Your task to perform on an android device: open app "Spotify" (install if not already installed) Image 0: 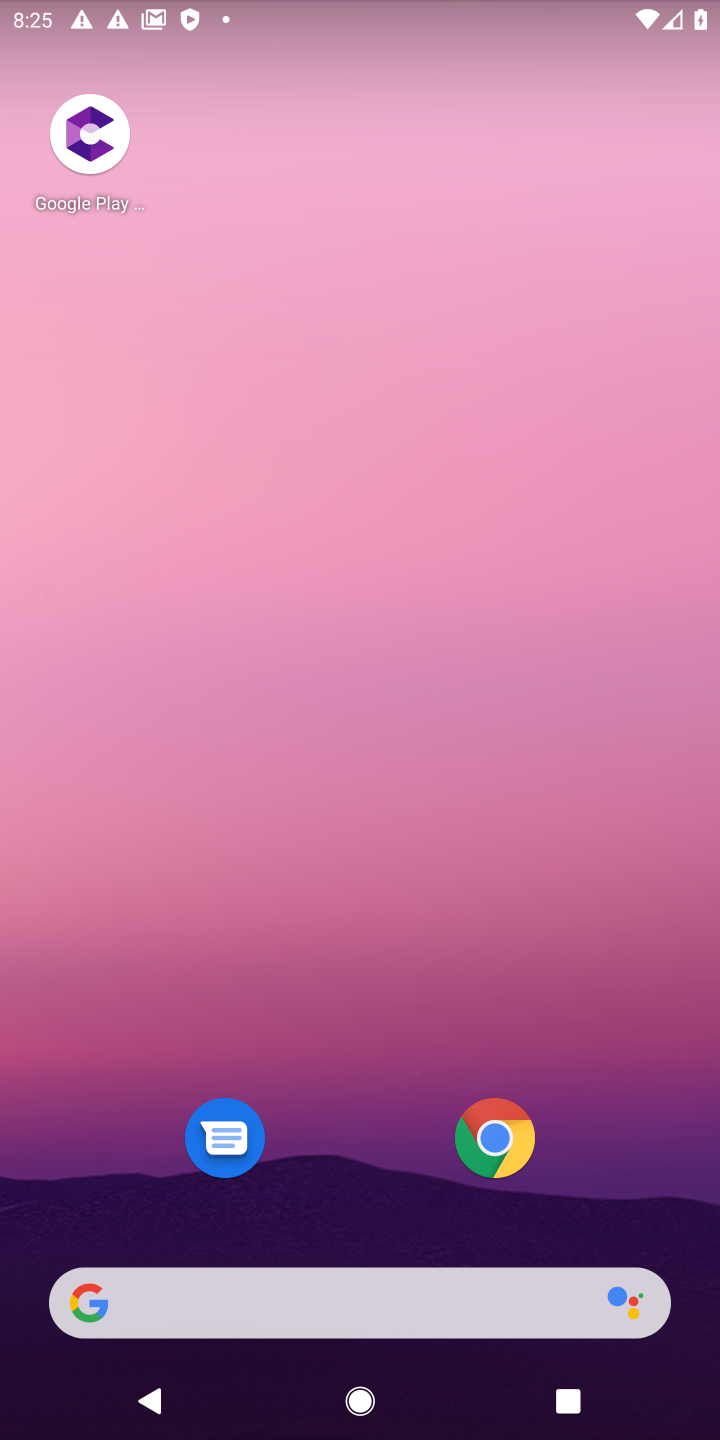
Step 0: drag from (370, 1227) to (497, 458)
Your task to perform on an android device: open app "Spotify" (install if not already installed) Image 1: 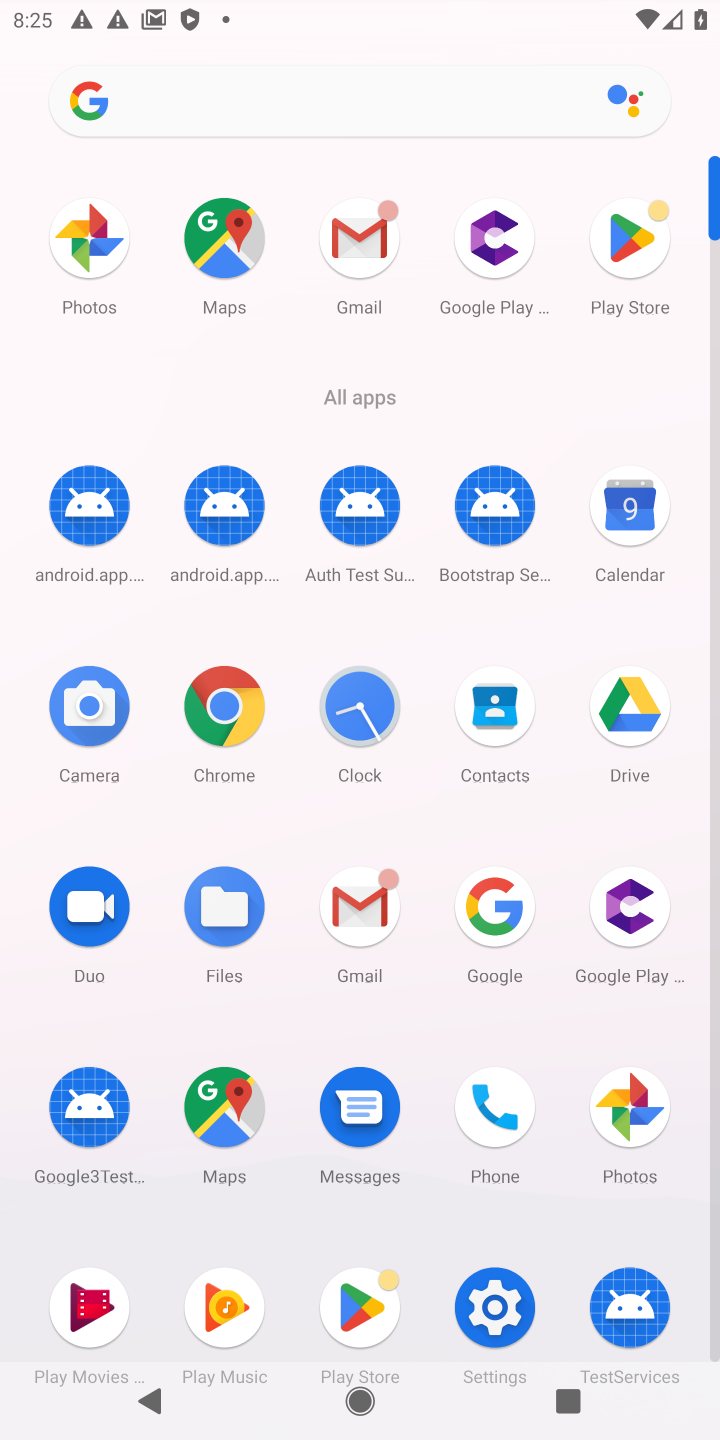
Step 1: click (627, 244)
Your task to perform on an android device: open app "Spotify" (install if not already installed) Image 2: 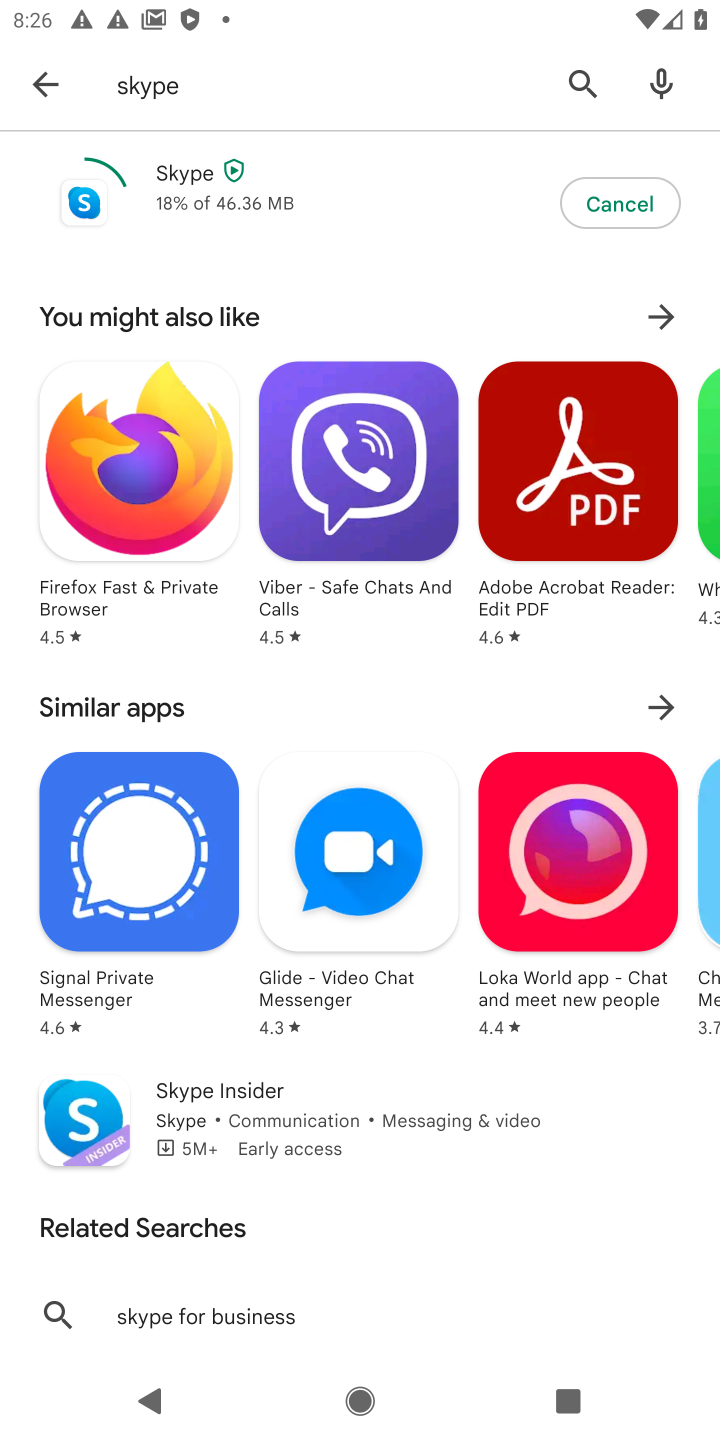
Step 2: click (589, 71)
Your task to perform on an android device: open app "Spotify" (install if not already installed) Image 3: 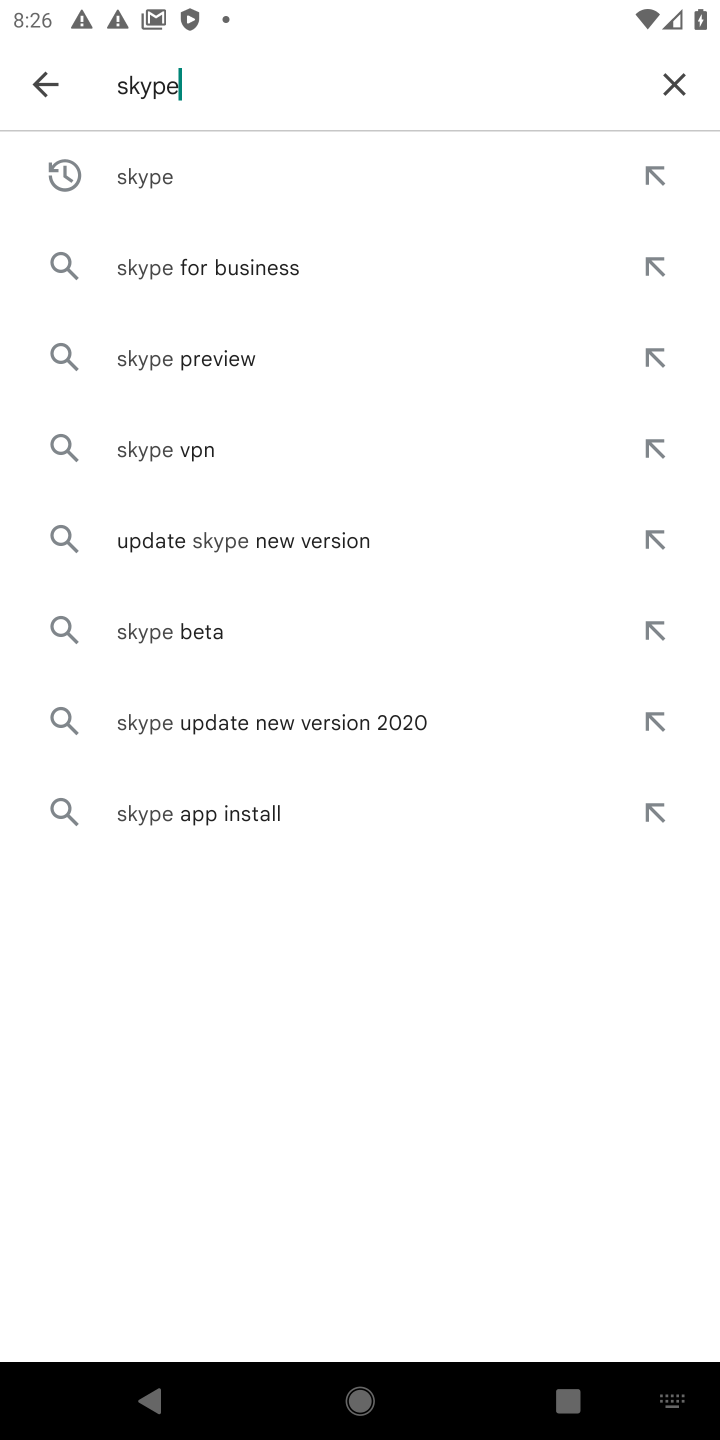
Step 3: click (667, 71)
Your task to perform on an android device: open app "Spotify" (install if not already installed) Image 4: 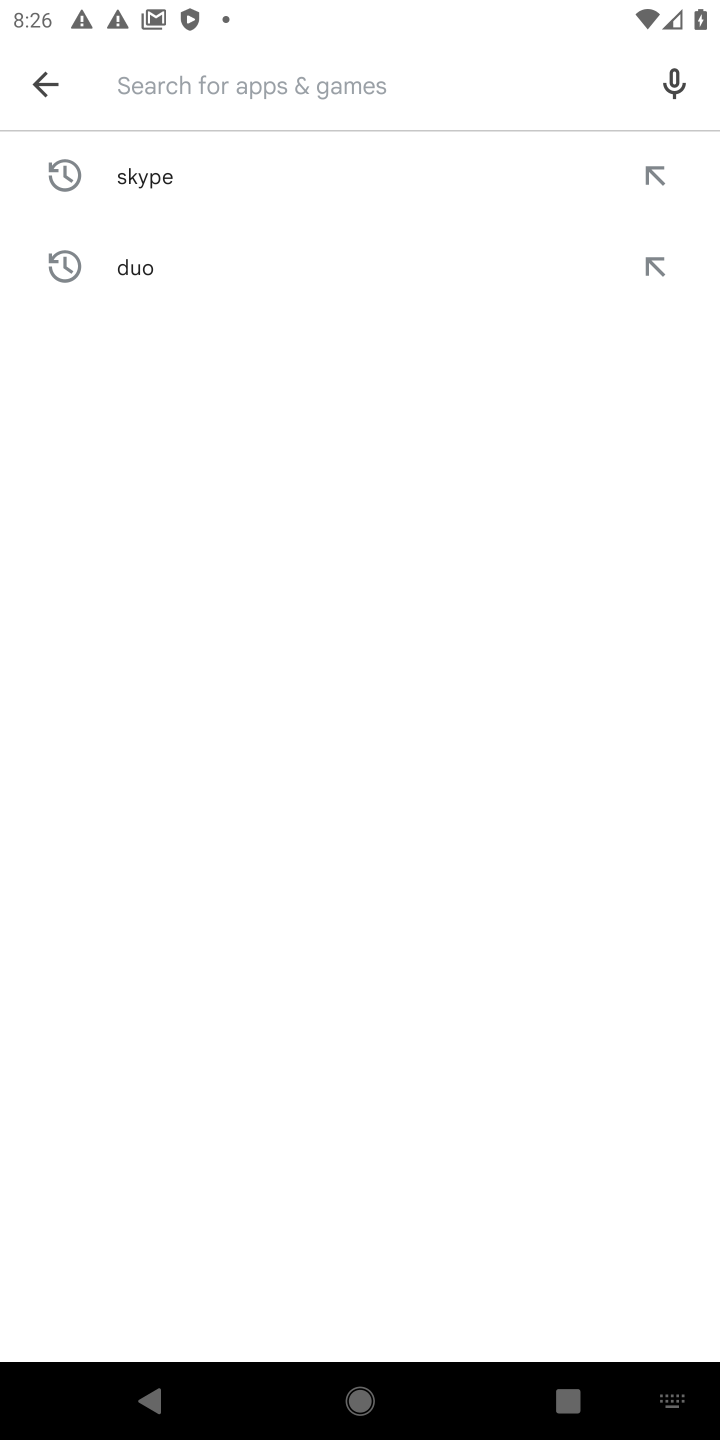
Step 4: type "spotify"
Your task to perform on an android device: open app "Spotify" (install if not already installed) Image 5: 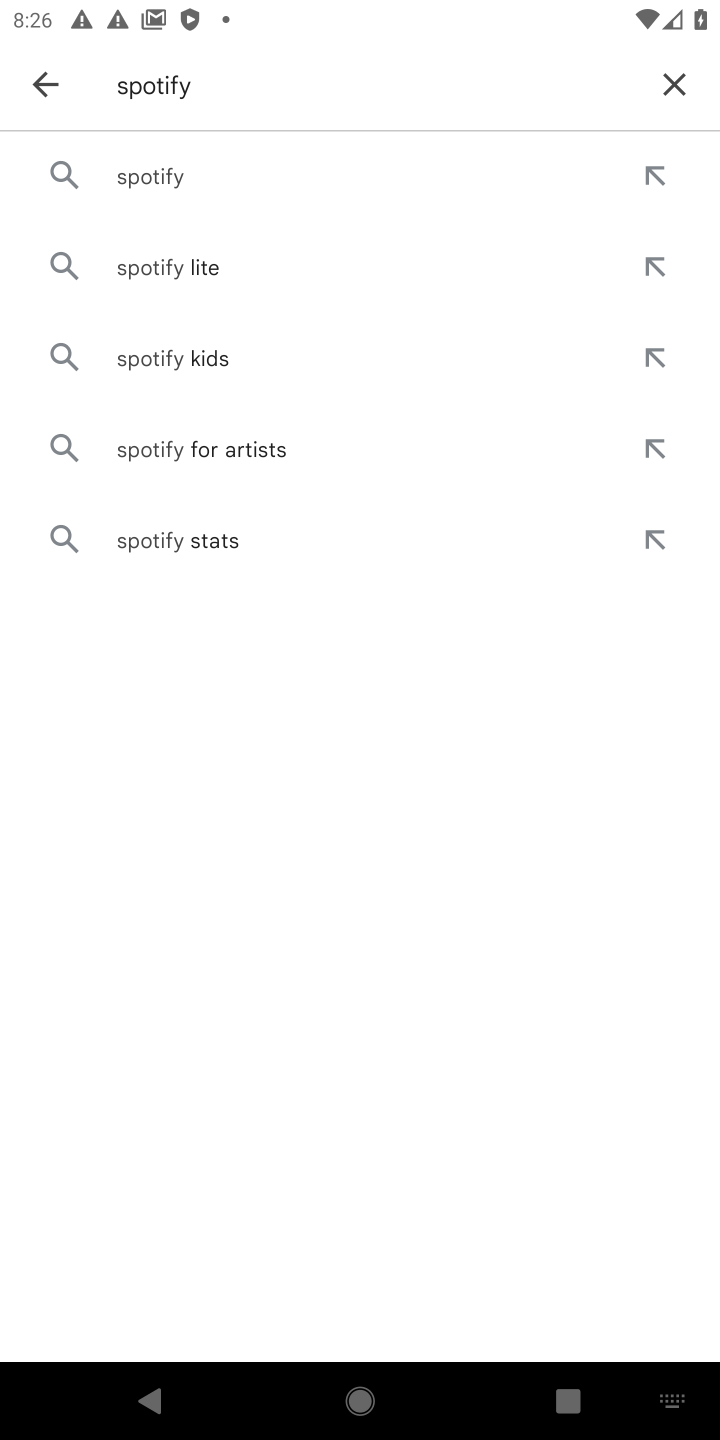
Step 5: click (311, 153)
Your task to perform on an android device: open app "Spotify" (install if not already installed) Image 6: 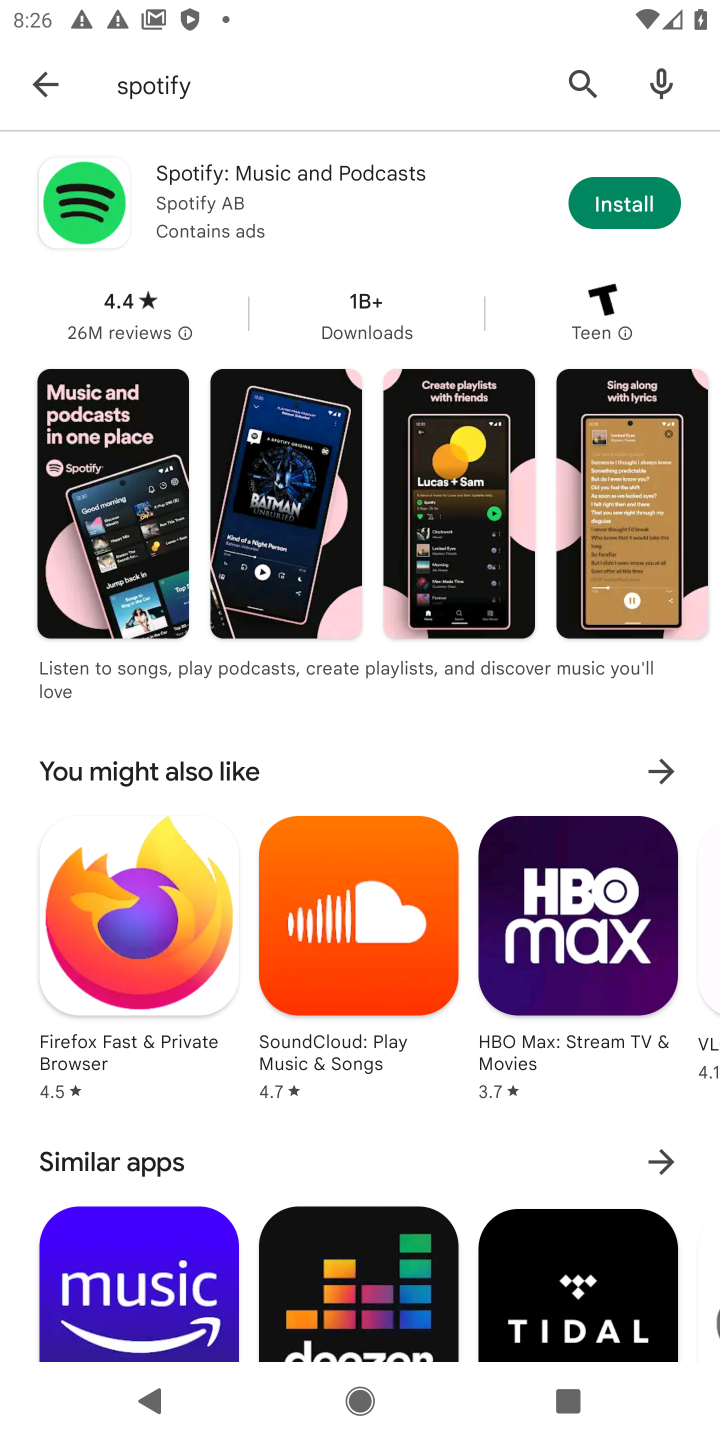
Step 6: click (647, 195)
Your task to perform on an android device: open app "Spotify" (install if not already installed) Image 7: 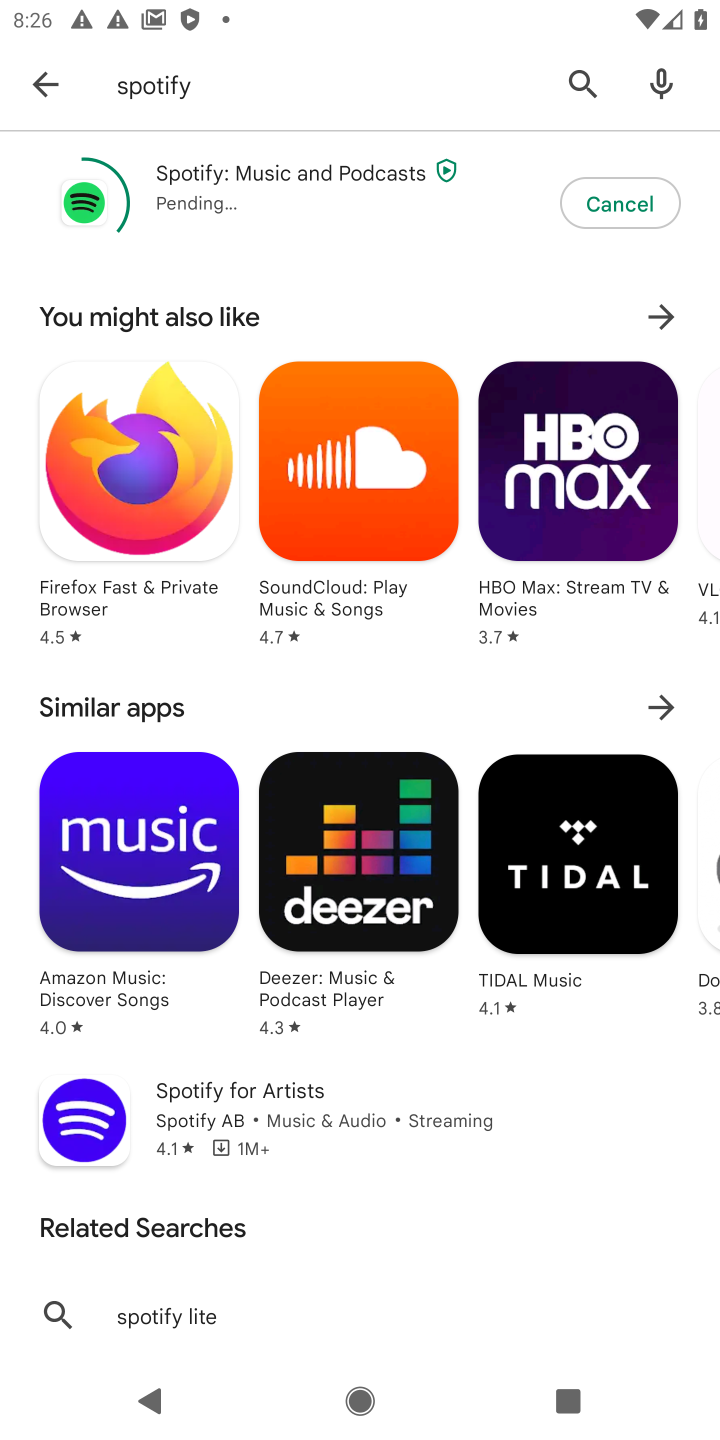
Step 7: task complete